Your task to perform on an android device: toggle priority inbox in the gmail app Image 0: 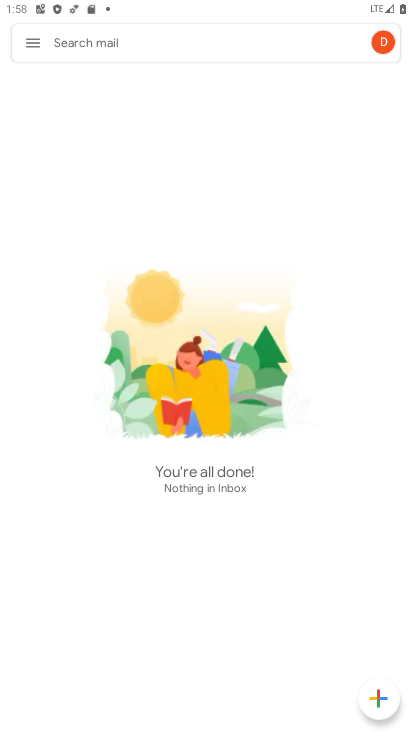
Step 0: press home button
Your task to perform on an android device: toggle priority inbox in the gmail app Image 1: 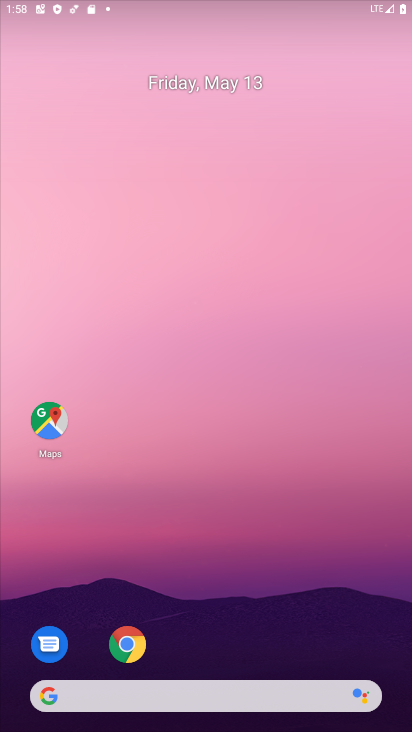
Step 1: drag from (346, 659) to (233, 59)
Your task to perform on an android device: toggle priority inbox in the gmail app Image 2: 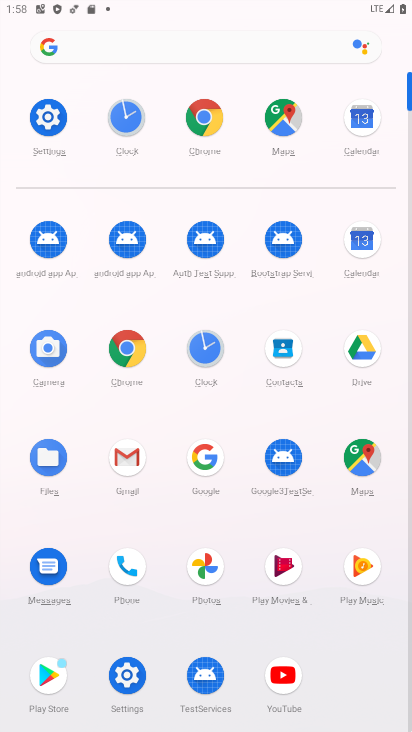
Step 2: click (128, 457)
Your task to perform on an android device: toggle priority inbox in the gmail app Image 3: 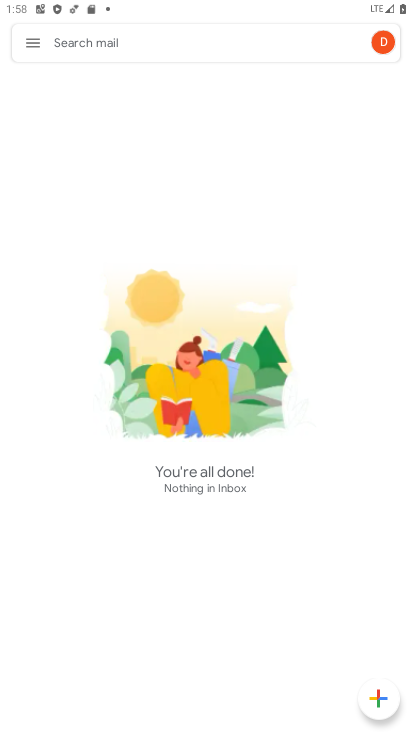
Step 3: click (34, 49)
Your task to perform on an android device: toggle priority inbox in the gmail app Image 4: 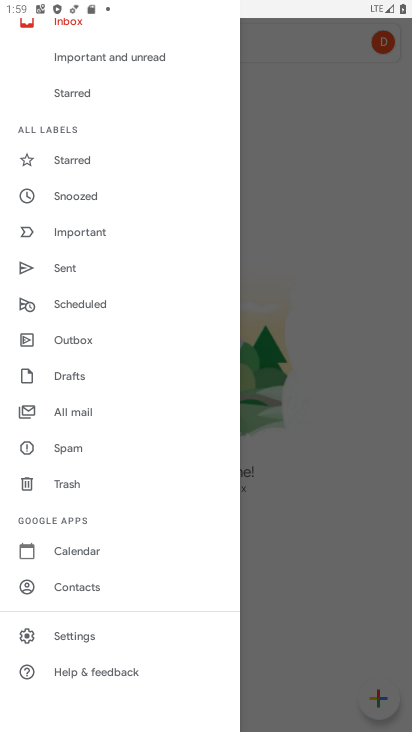
Step 4: click (77, 638)
Your task to perform on an android device: toggle priority inbox in the gmail app Image 5: 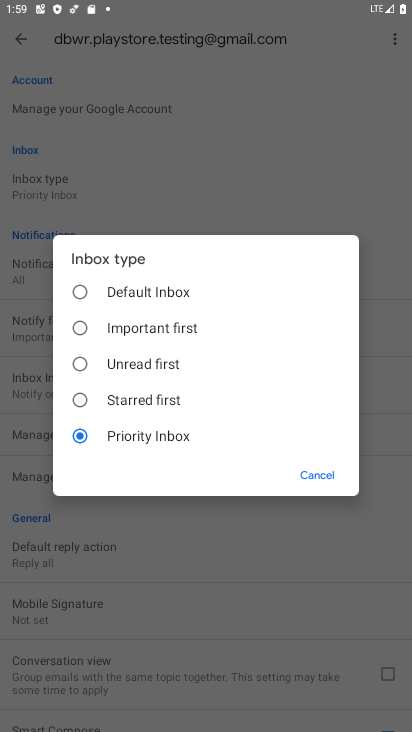
Step 5: click (325, 472)
Your task to perform on an android device: toggle priority inbox in the gmail app Image 6: 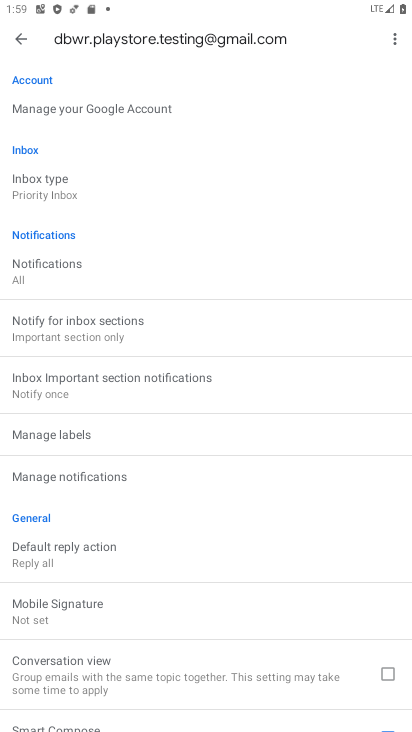
Step 6: click (94, 216)
Your task to perform on an android device: toggle priority inbox in the gmail app Image 7: 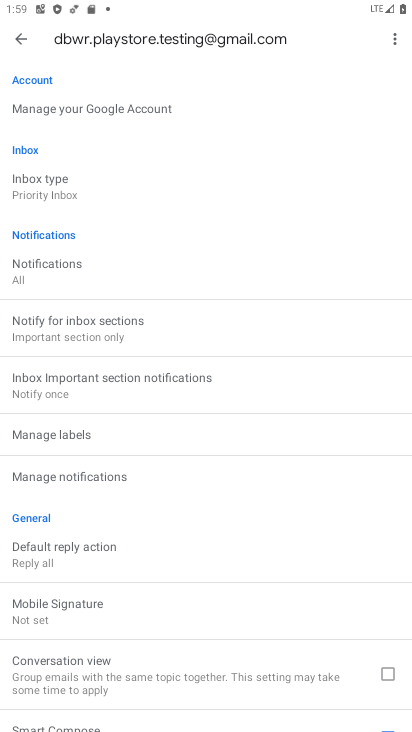
Step 7: click (78, 196)
Your task to perform on an android device: toggle priority inbox in the gmail app Image 8: 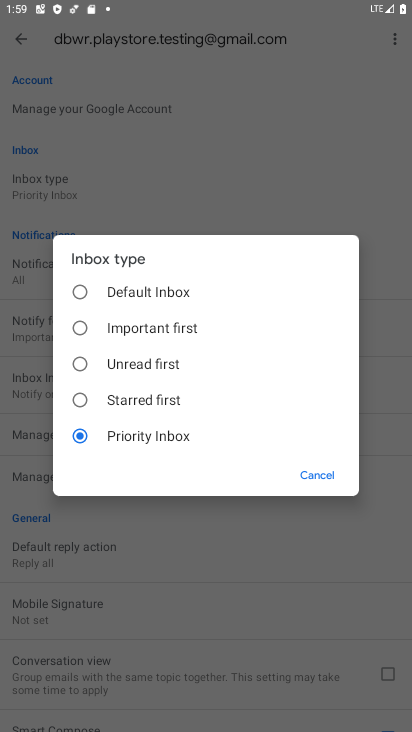
Step 8: click (149, 410)
Your task to perform on an android device: toggle priority inbox in the gmail app Image 9: 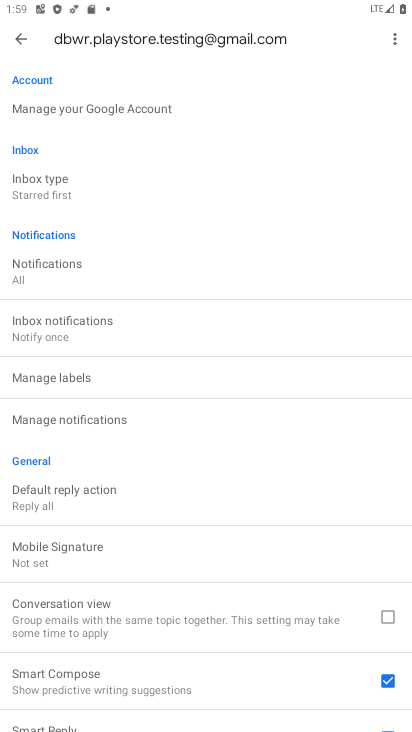
Step 9: task complete